Your task to perform on an android device: Toggle the flashlight Image 0: 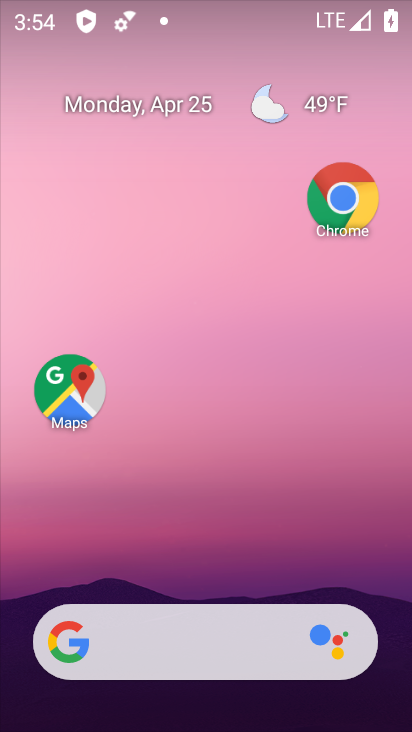
Step 0: press home button
Your task to perform on an android device: Toggle the flashlight Image 1: 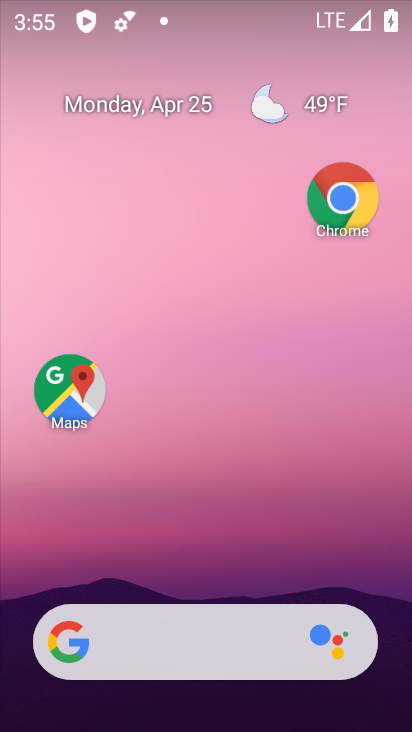
Step 1: task complete